Your task to perform on an android device: Open the calendar app, open the side menu, and click the "Day" option Image 0: 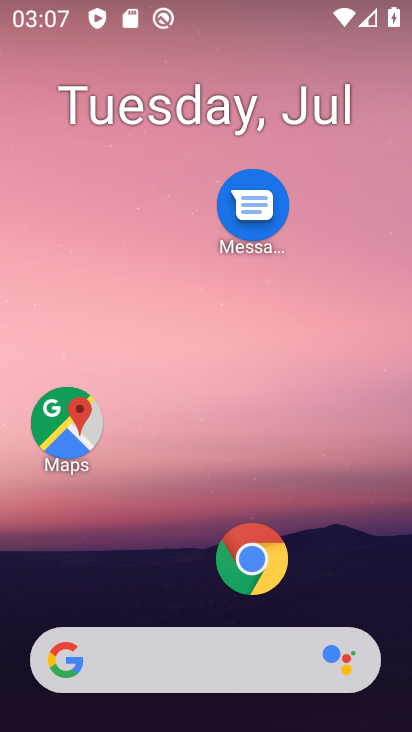
Step 0: drag from (123, 585) to (219, 39)
Your task to perform on an android device: Open the calendar app, open the side menu, and click the "Day" option Image 1: 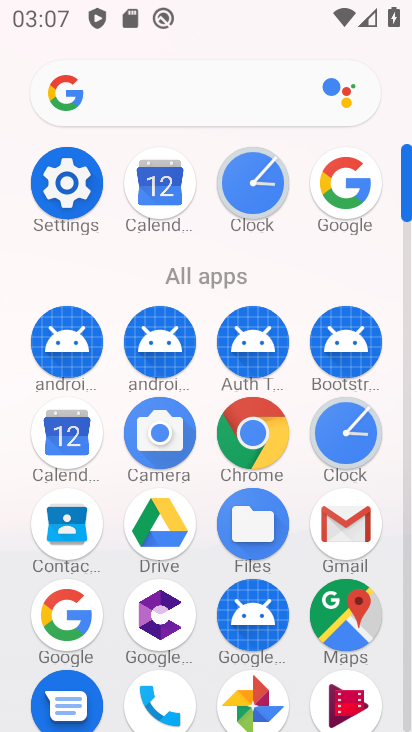
Step 1: click (63, 453)
Your task to perform on an android device: Open the calendar app, open the side menu, and click the "Day" option Image 2: 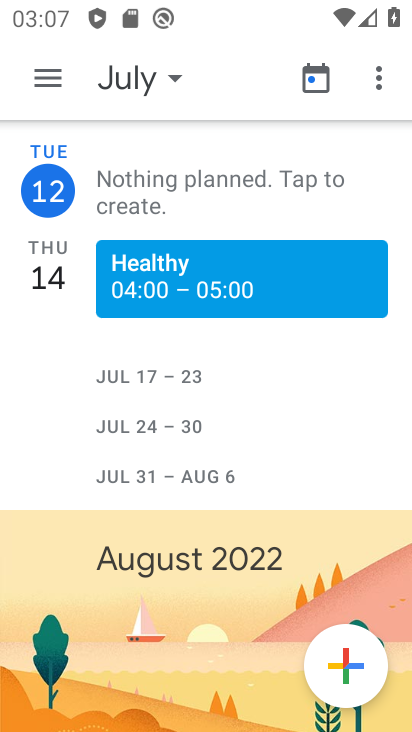
Step 2: click (34, 71)
Your task to perform on an android device: Open the calendar app, open the side menu, and click the "Day" option Image 3: 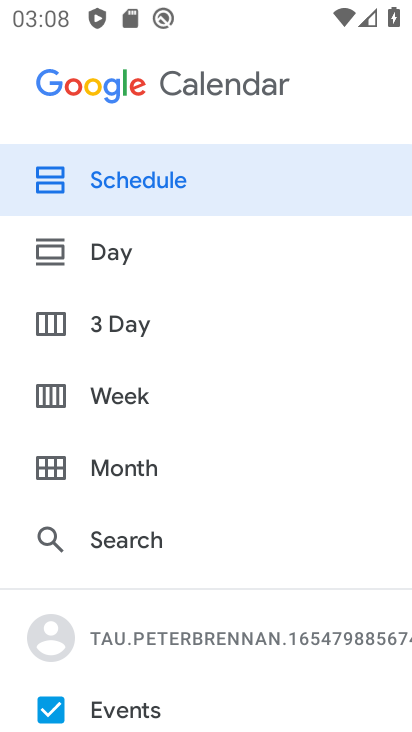
Step 3: click (185, 246)
Your task to perform on an android device: Open the calendar app, open the side menu, and click the "Day" option Image 4: 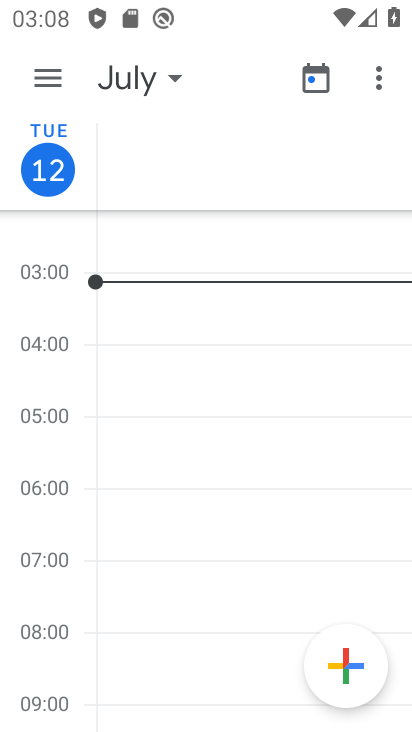
Step 4: task complete